Your task to perform on an android device: check storage Image 0: 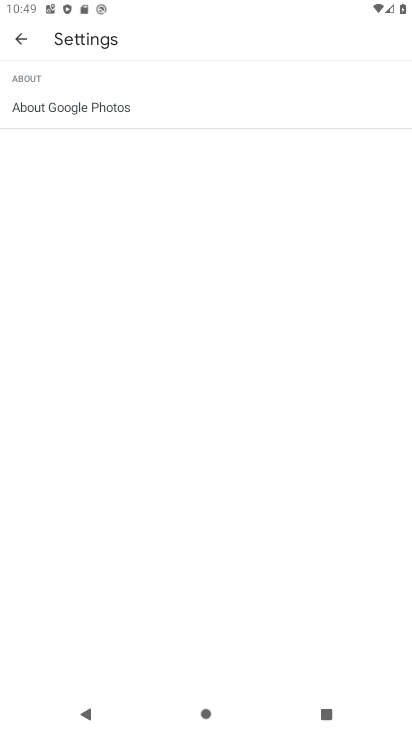
Step 0: press home button
Your task to perform on an android device: check storage Image 1: 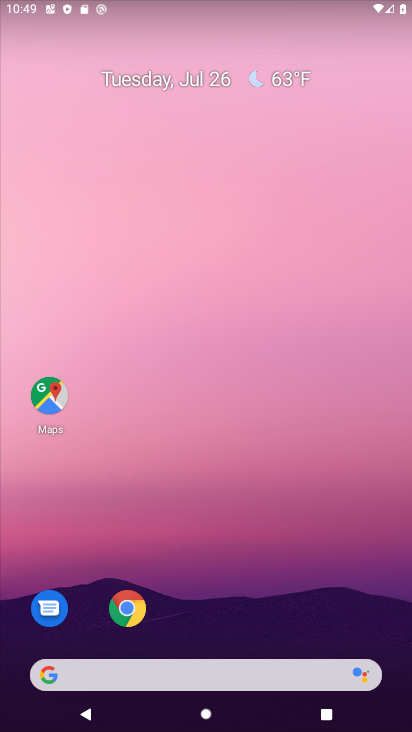
Step 1: drag from (232, 601) to (231, 48)
Your task to perform on an android device: check storage Image 2: 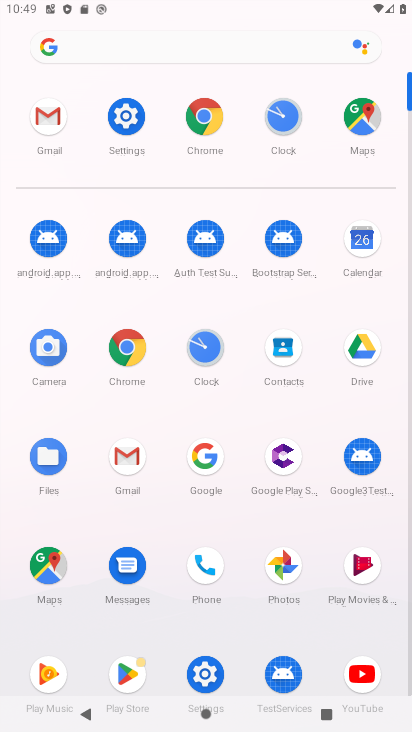
Step 2: click (120, 127)
Your task to perform on an android device: check storage Image 3: 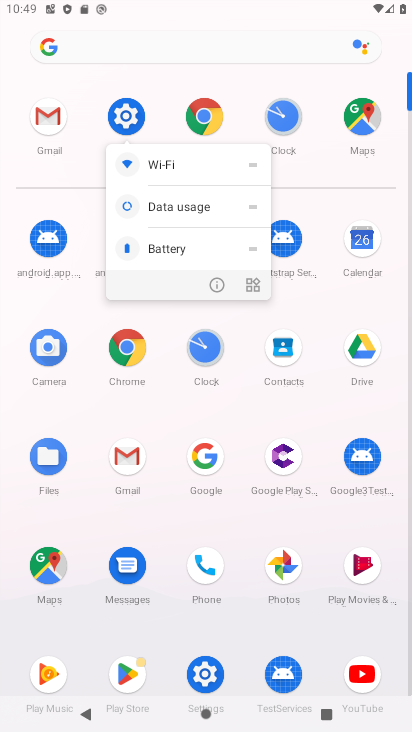
Step 3: click (130, 115)
Your task to perform on an android device: check storage Image 4: 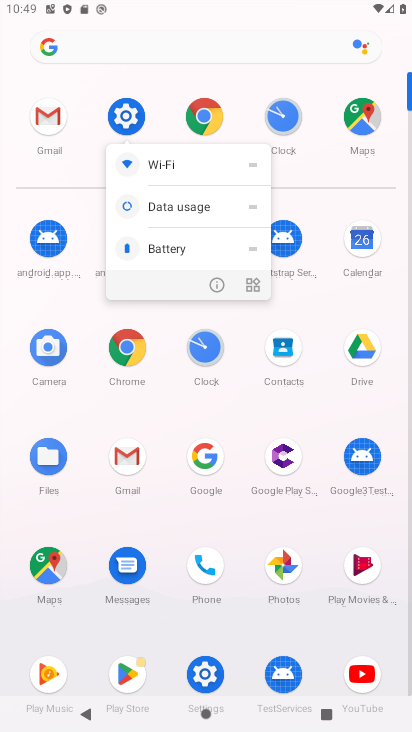
Step 4: click (126, 119)
Your task to perform on an android device: check storage Image 5: 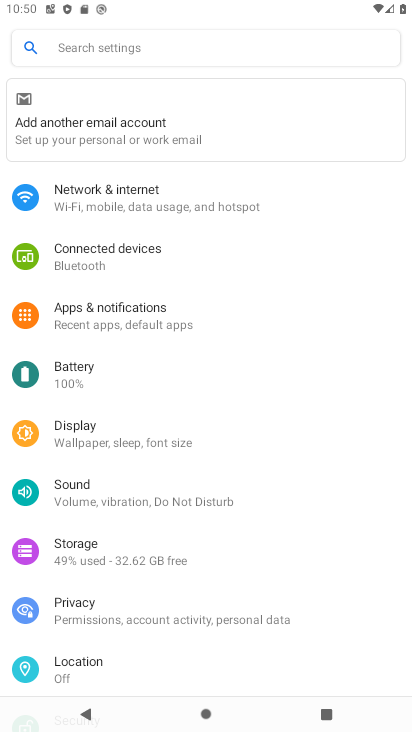
Step 5: drag from (245, 535) to (264, 218)
Your task to perform on an android device: check storage Image 6: 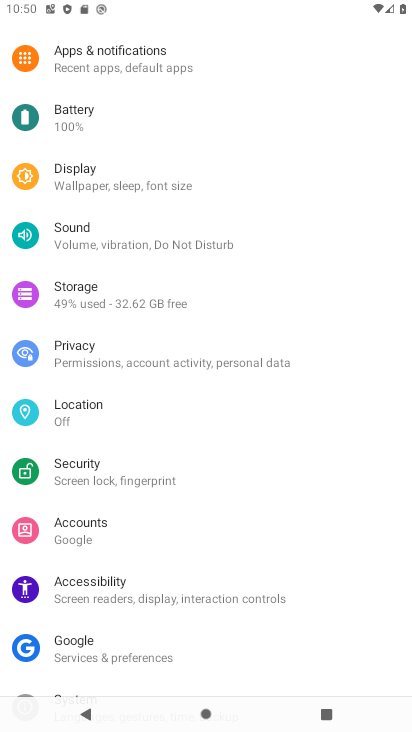
Step 6: click (118, 299)
Your task to perform on an android device: check storage Image 7: 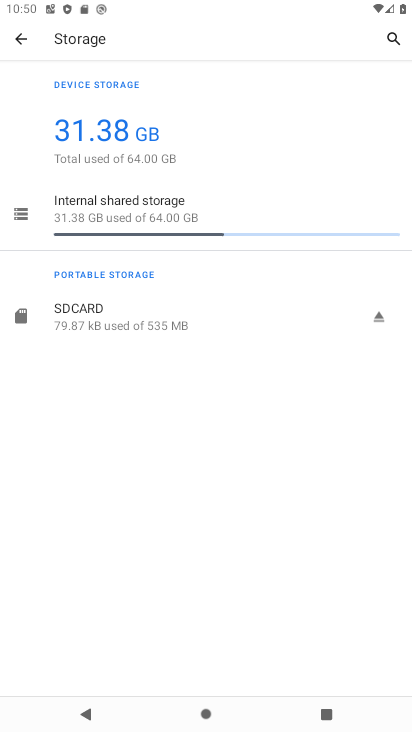
Step 7: task complete